Your task to perform on an android device: open a bookmark in the chrome app Image 0: 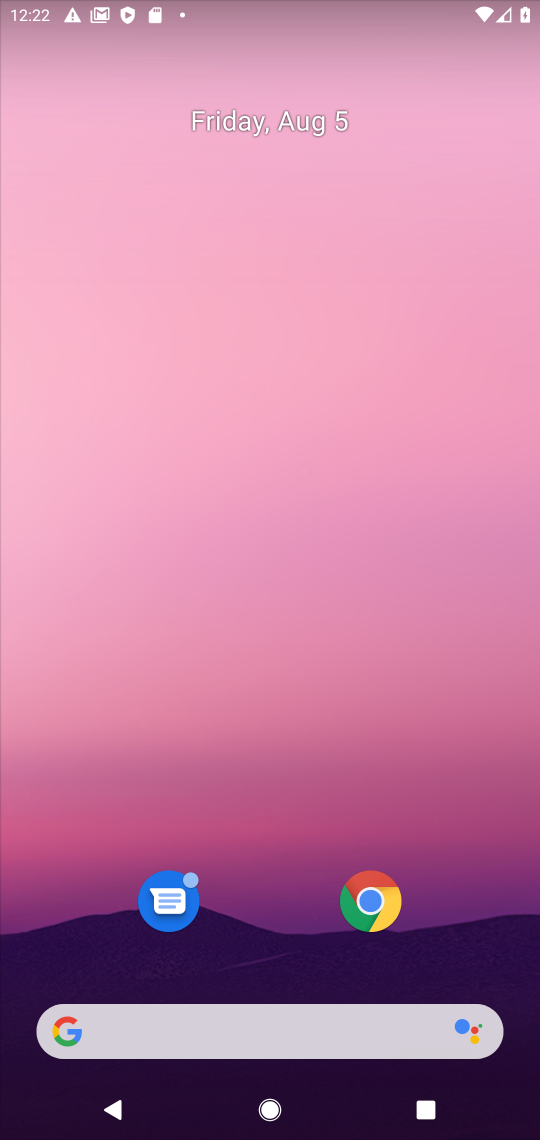
Step 0: click (357, 893)
Your task to perform on an android device: open a bookmark in the chrome app Image 1: 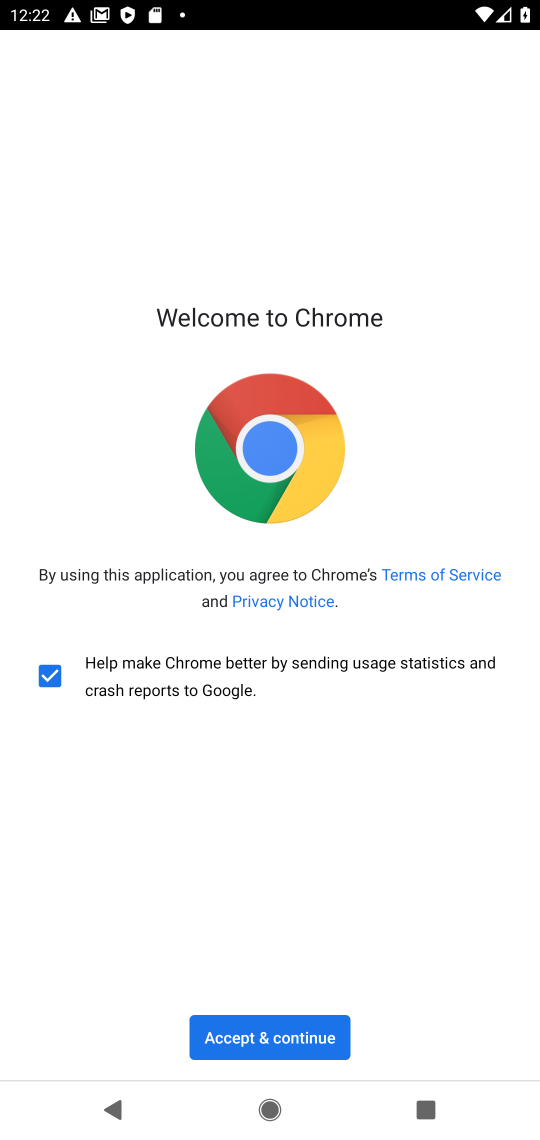
Step 1: click (238, 1032)
Your task to perform on an android device: open a bookmark in the chrome app Image 2: 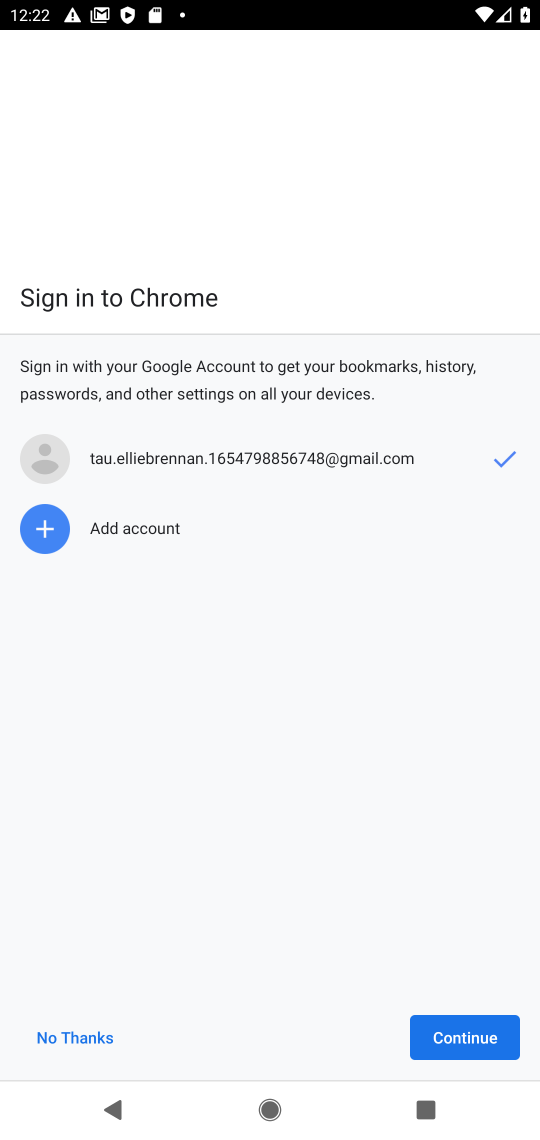
Step 2: click (447, 1037)
Your task to perform on an android device: open a bookmark in the chrome app Image 3: 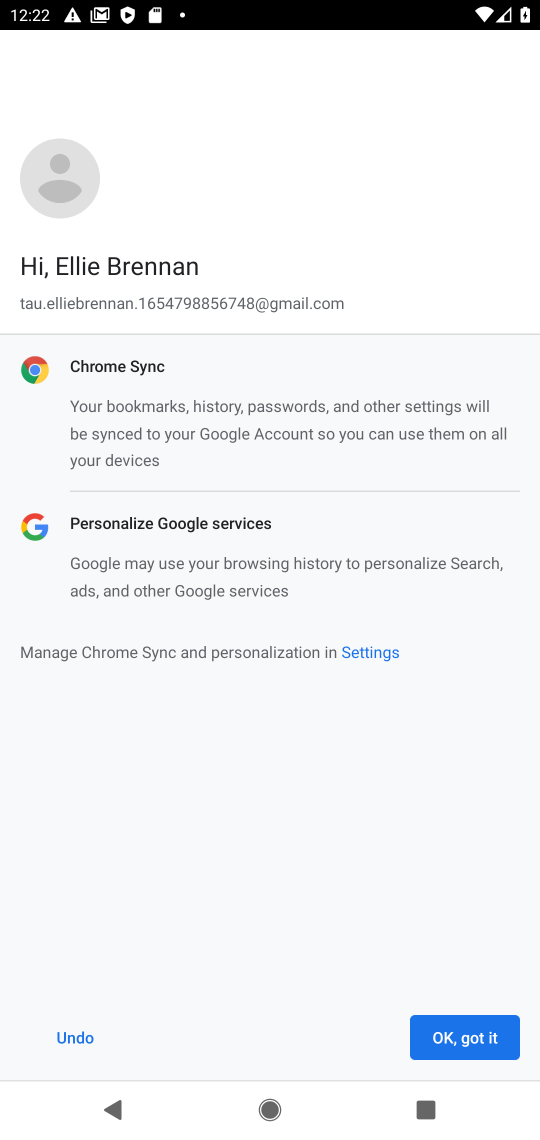
Step 3: click (447, 1037)
Your task to perform on an android device: open a bookmark in the chrome app Image 4: 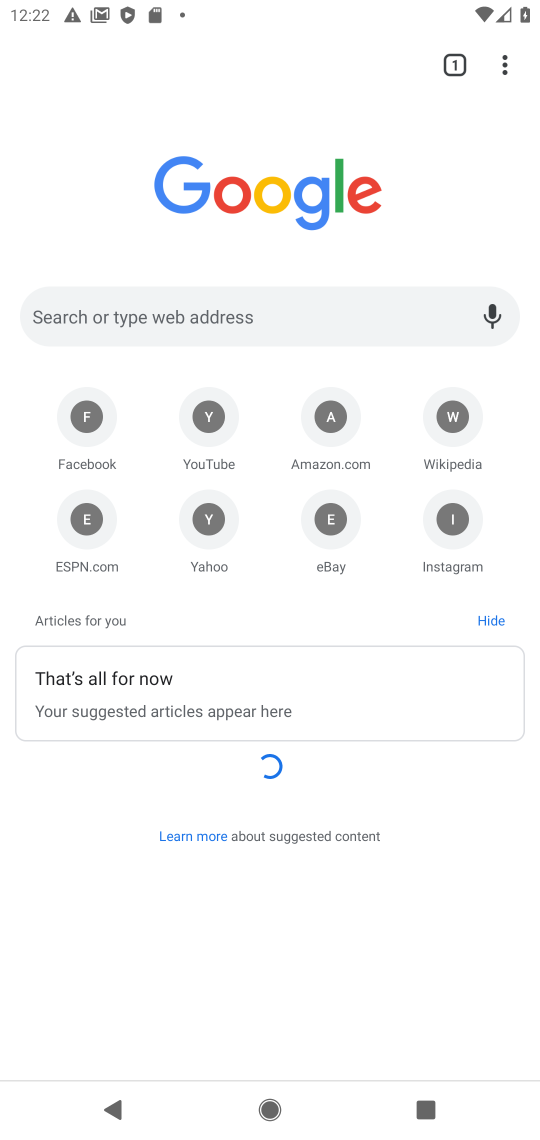
Step 4: click (499, 64)
Your task to perform on an android device: open a bookmark in the chrome app Image 5: 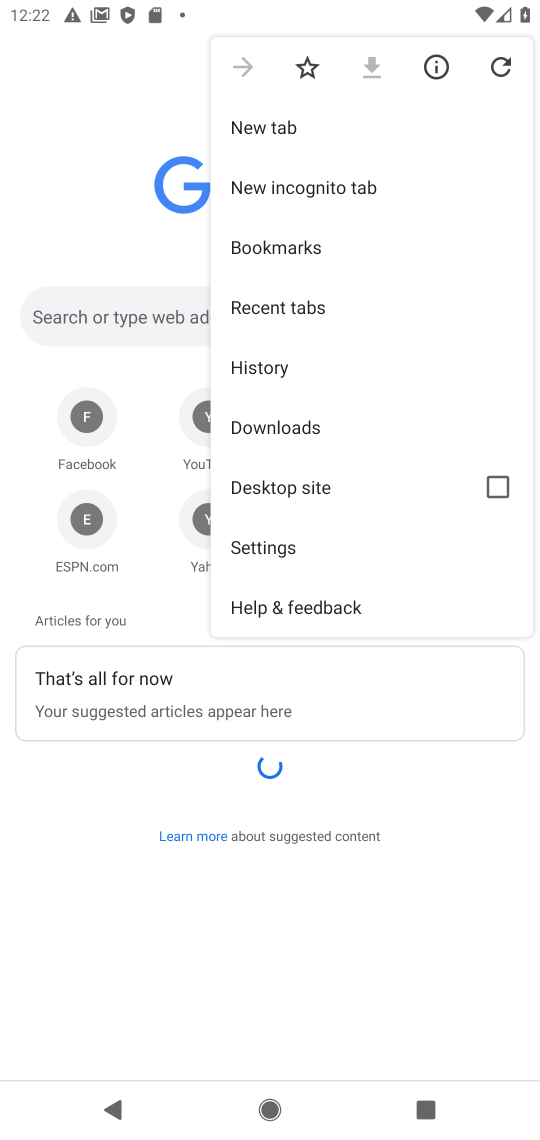
Step 5: click (314, 249)
Your task to perform on an android device: open a bookmark in the chrome app Image 6: 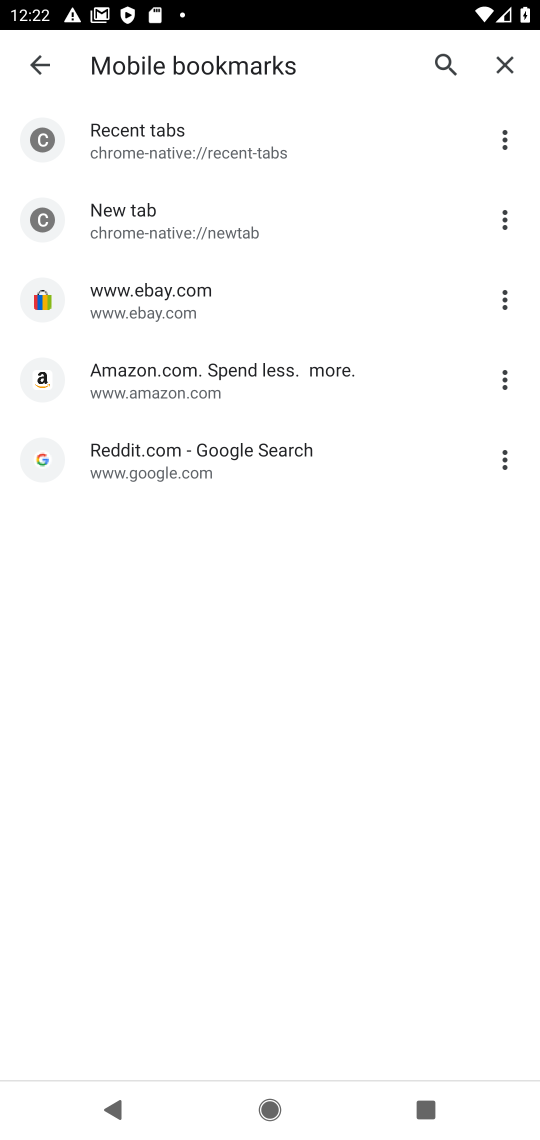
Step 6: task complete